Your task to perform on an android device: Do I have any events today? Image 0: 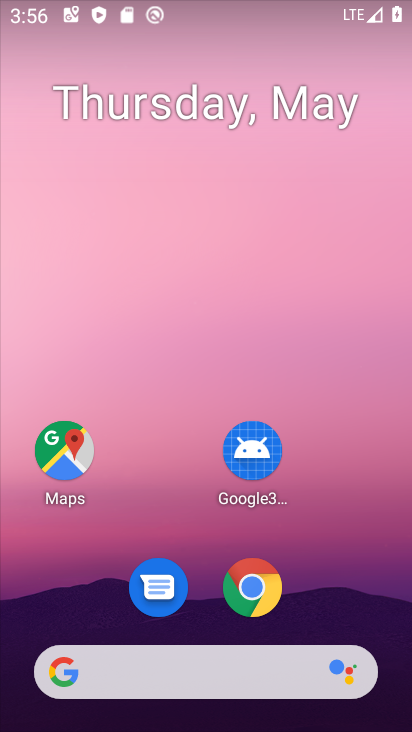
Step 0: drag from (281, 571) to (149, 133)
Your task to perform on an android device: Do I have any events today? Image 1: 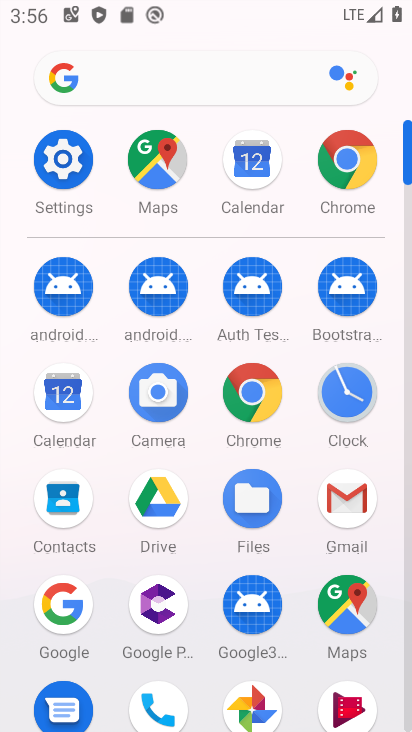
Step 1: click (85, 419)
Your task to perform on an android device: Do I have any events today? Image 2: 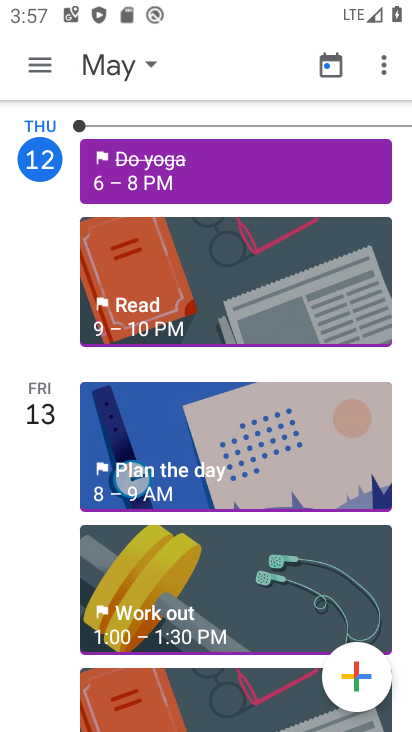
Step 2: task complete